Your task to perform on an android device: turn pop-ups off in chrome Image 0: 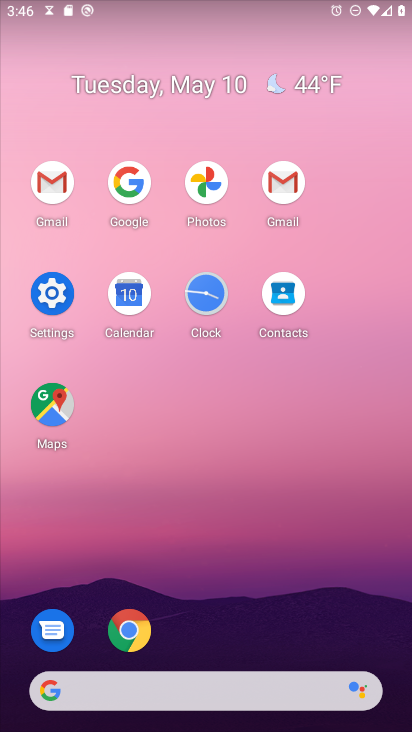
Step 0: click (120, 629)
Your task to perform on an android device: turn pop-ups off in chrome Image 1: 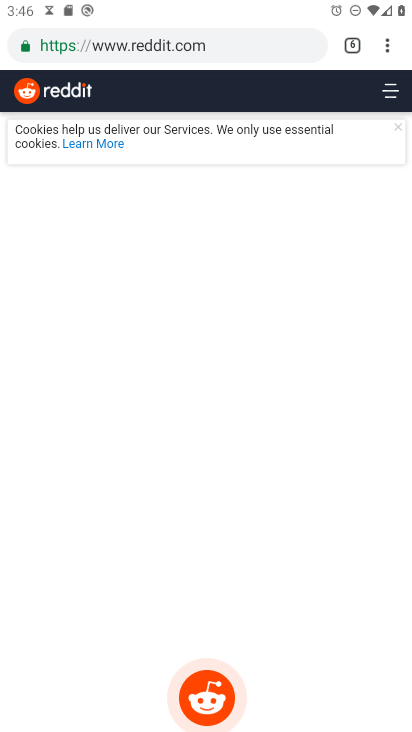
Step 1: click (384, 51)
Your task to perform on an android device: turn pop-ups off in chrome Image 2: 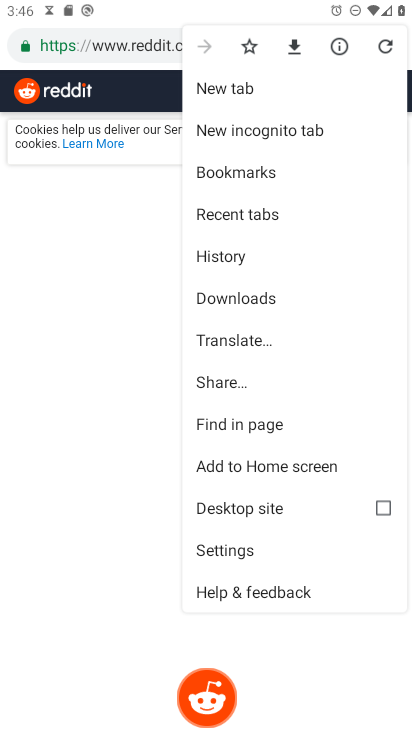
Step 2: click (248, 542)
Your task to perform on an android device: turn pop-ups off in chrome Image 3: 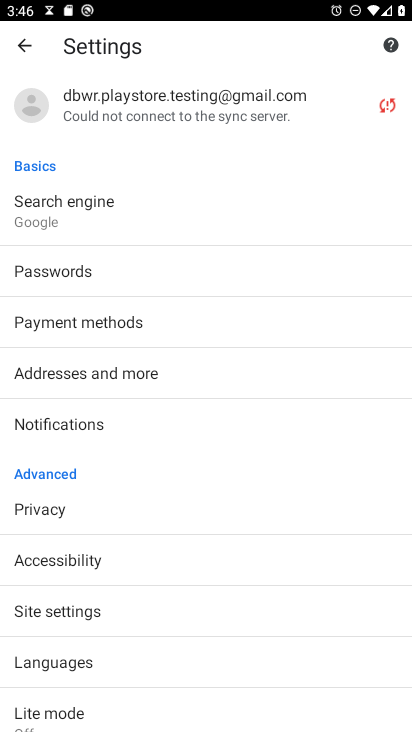
Step 3: click (142, 606)
Your task to perform on an android device: turn pop-ups off in chrome Image 4: 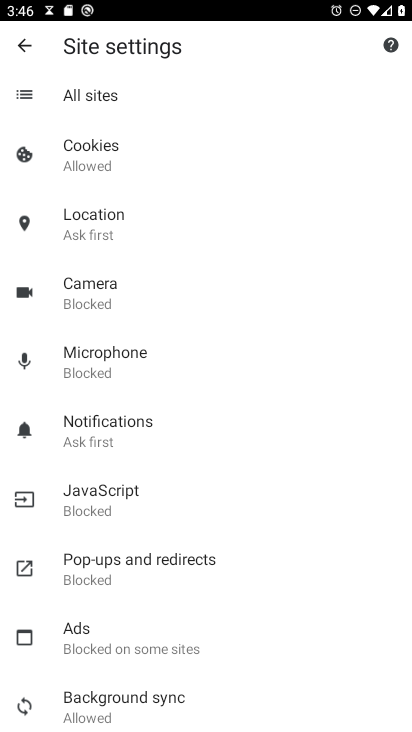
Step 4: drag from (226, 641) to (317, 350)
Your task to perform on an android device: turn pop-ups off in chrome Image 5: 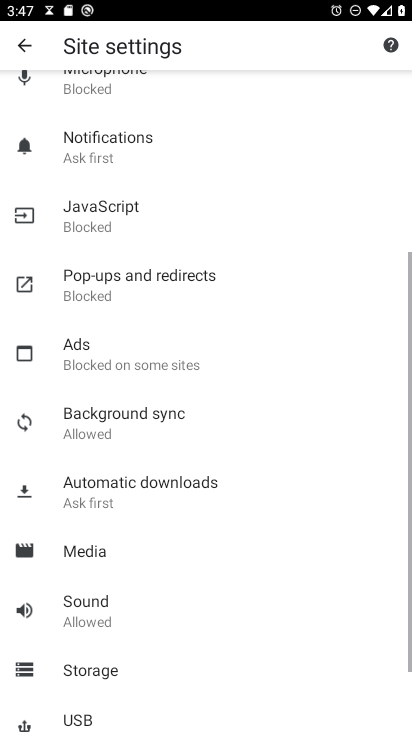
Step 5: click (163, 303)
Your task to perform on an android device: turn pop-ups off in chrome Image 6: 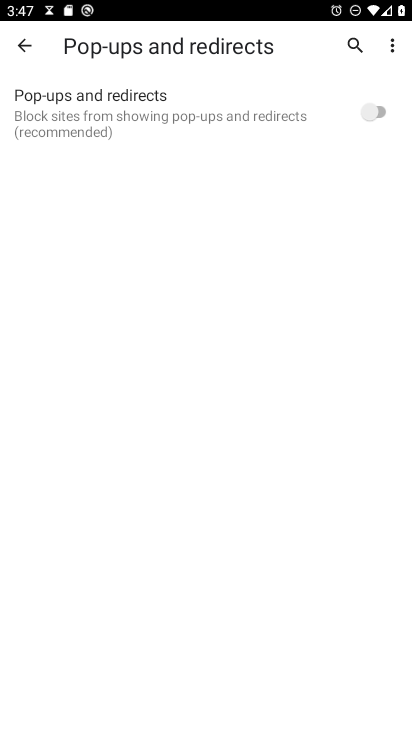
Step 6: task complete